Your task to perform on an android device: Find coffee shops on Maps Image 0: 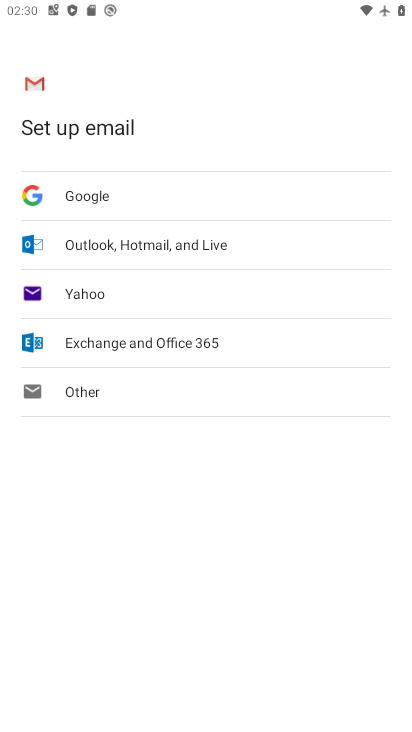
Step 0: press home button
Your task to perform on an android device: Find coffee shops on Maps Image 1: 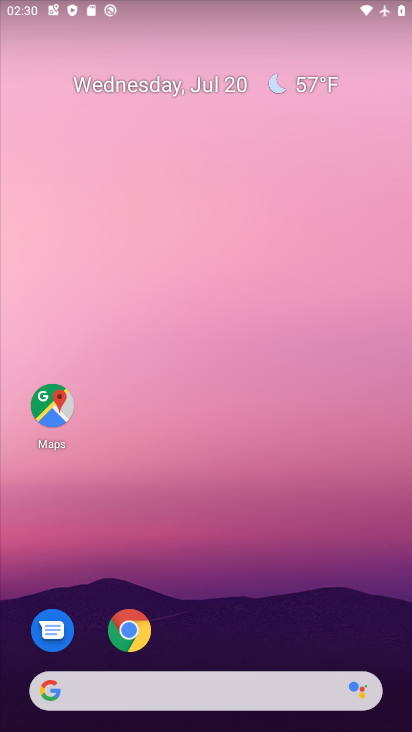
Step 1: drag from (277, 601) to (251, 61)
Your task to perform on an android device: Find coffee shops on Maps Image 2: 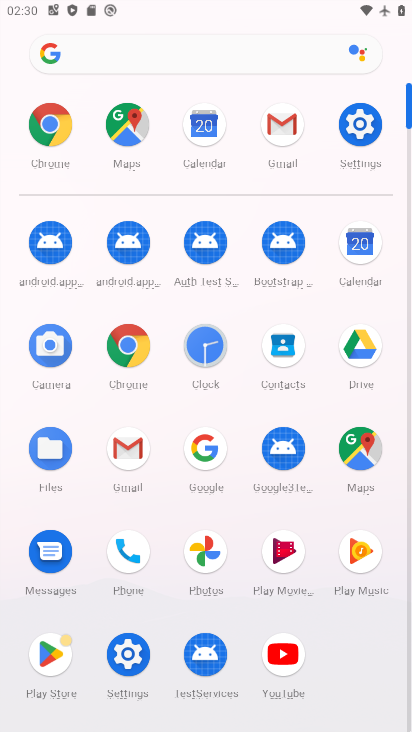
Step 2: click (121, 128)
Your task to perform on an android device: Find coffee shops on Maps Image 3: 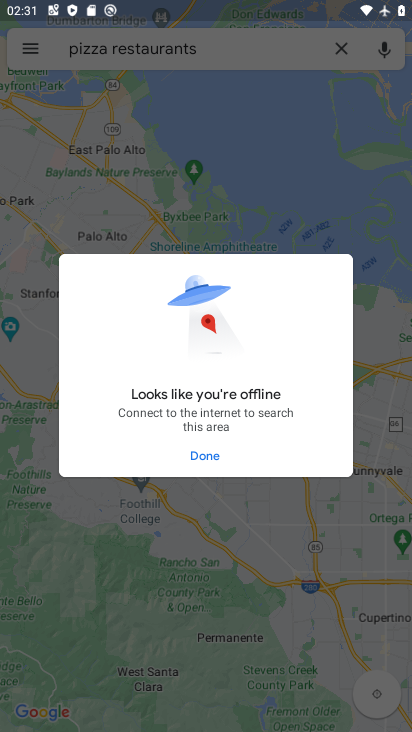
Step 3: click (197, 444)
Your task to perform on an android device: Find coffee shops on Maps Image 4: 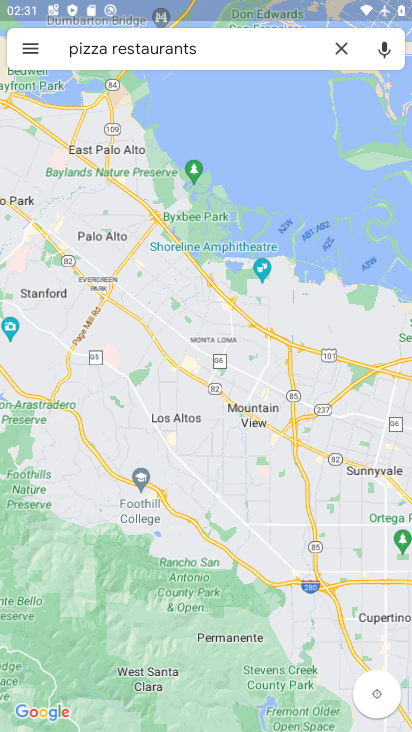
Step 4: click (274, 47)
Your task to perform on an android device: Find coffee shops on Maps Image 5: 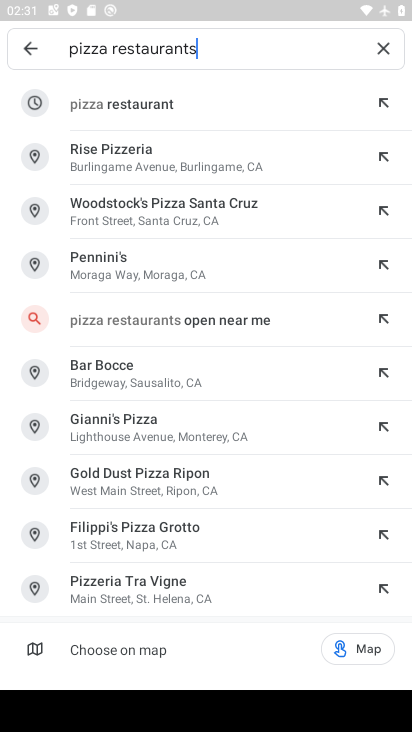
Step 5: click (378, 40)
Your task to perform on an android device: Find coffee shops on Maps Image 6: 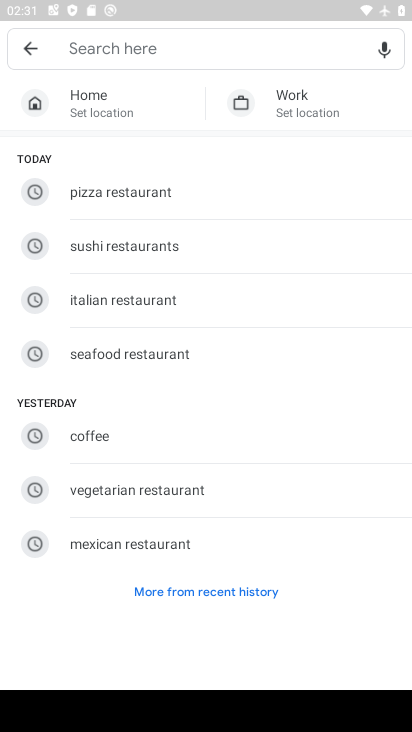
Step 6: type "coffee shops"
Your task to perform on an android device: Find coffee shops on Maps Image 7: 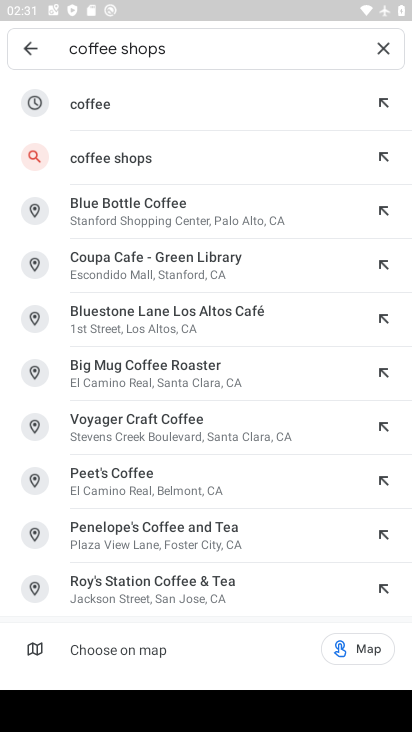
Step 7: click (174, 157)
Your task to perform on an android device: Find coffee shops on Maps Image 8: 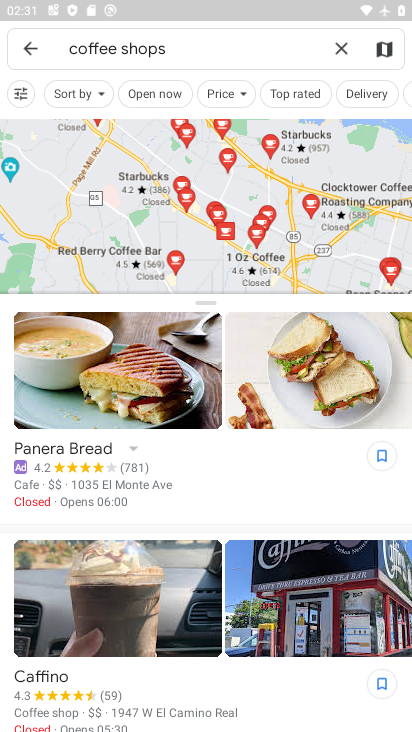
Step 8: task complete